Your task to perform on an android device: install app "Google Calendar" Image 0: 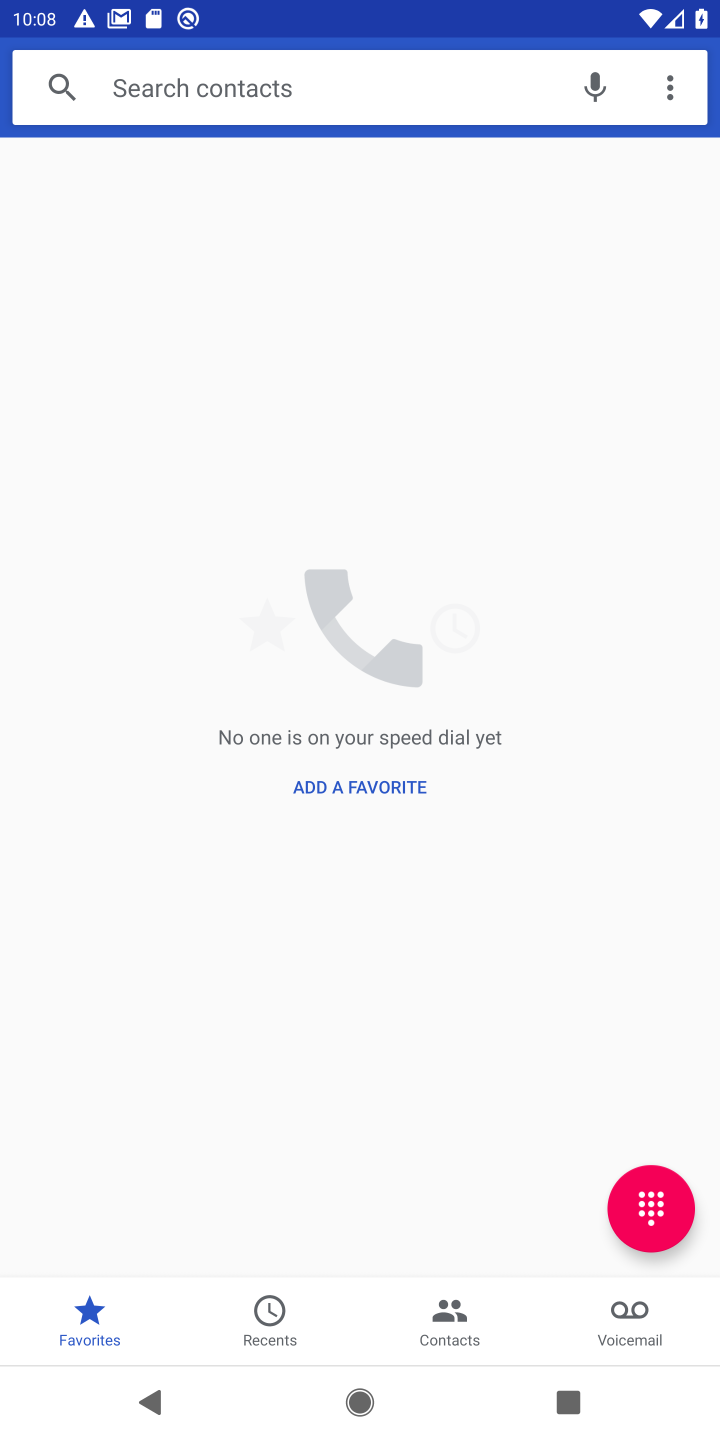
Step 0: press home button
Your task to perform on an android device: install app "Google Calendar" Image 1: 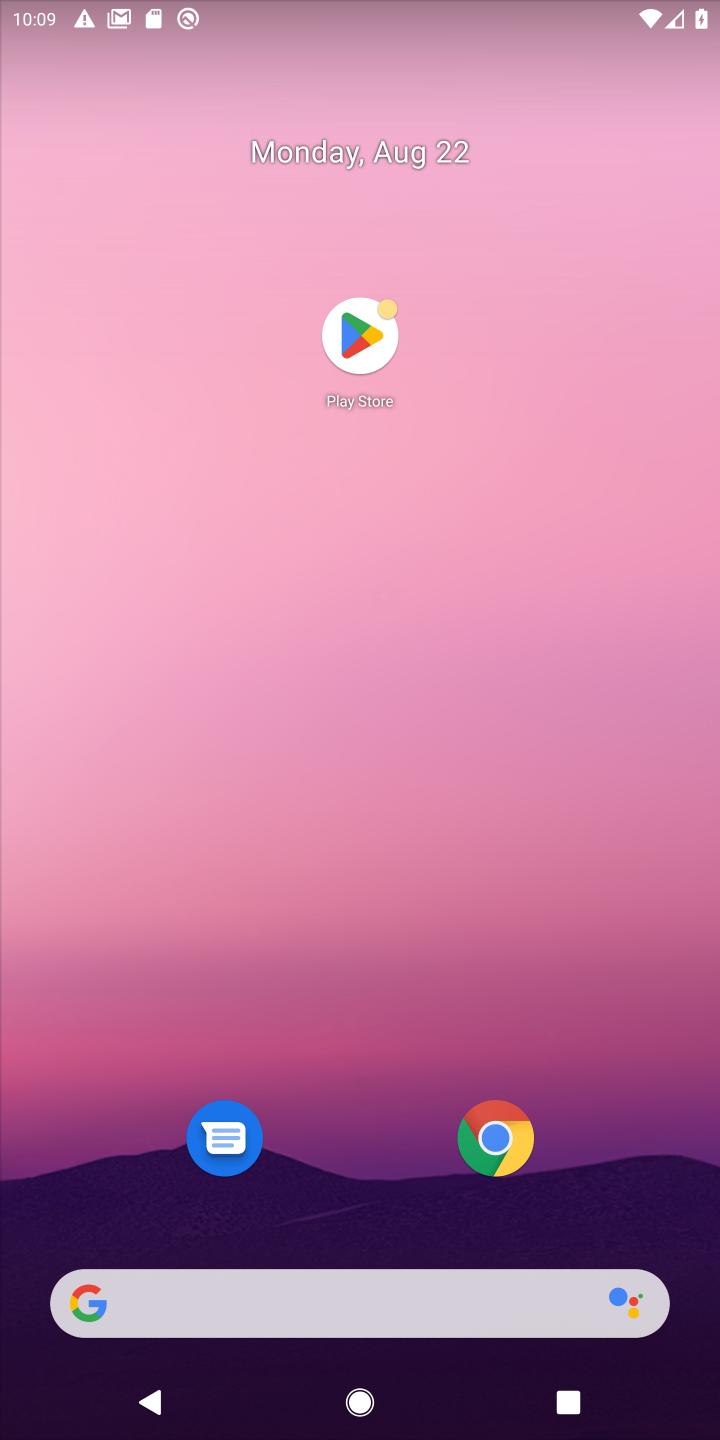
Step 1: click (373, 336)
Your task to perform on an android device: install app "Google Calendar" Image 2: 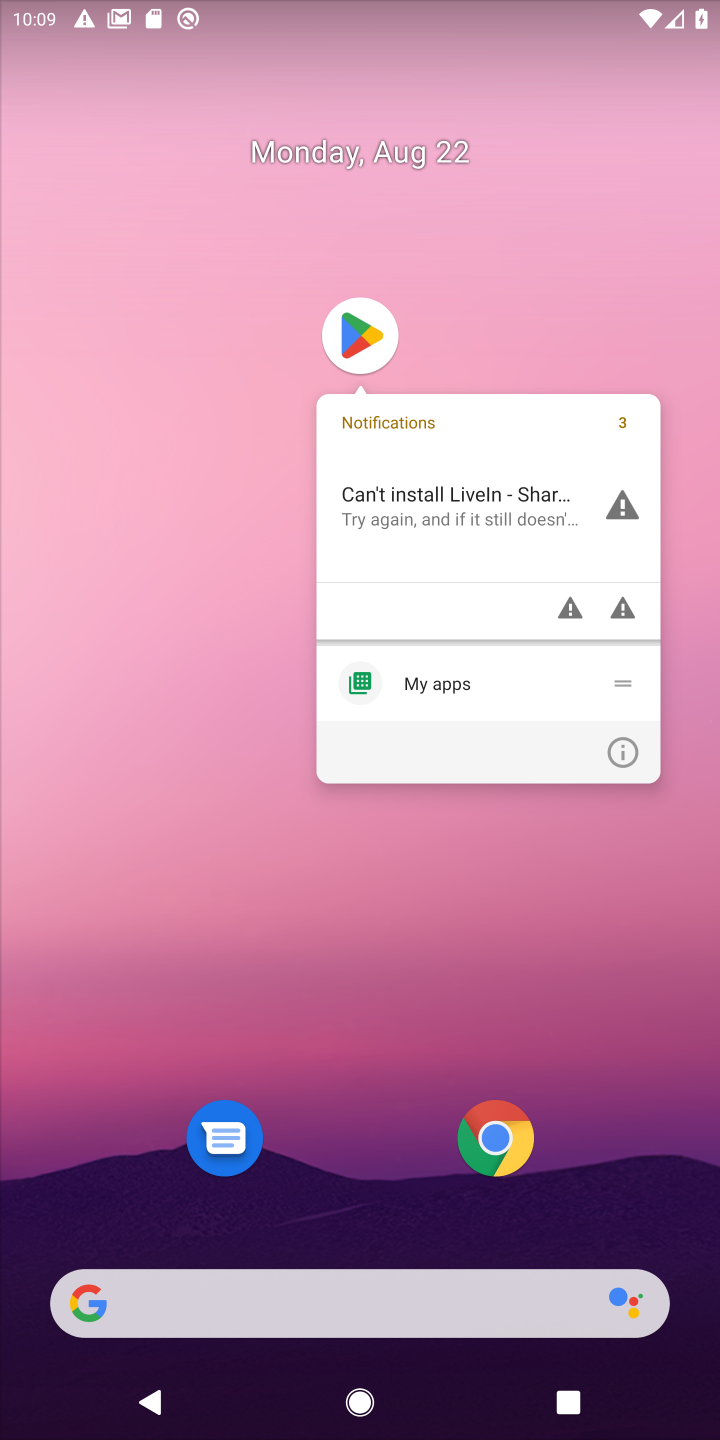
Step 2: click (346, 329)
Your task to perform on an android device: install app "Google Calendar" Image 3: 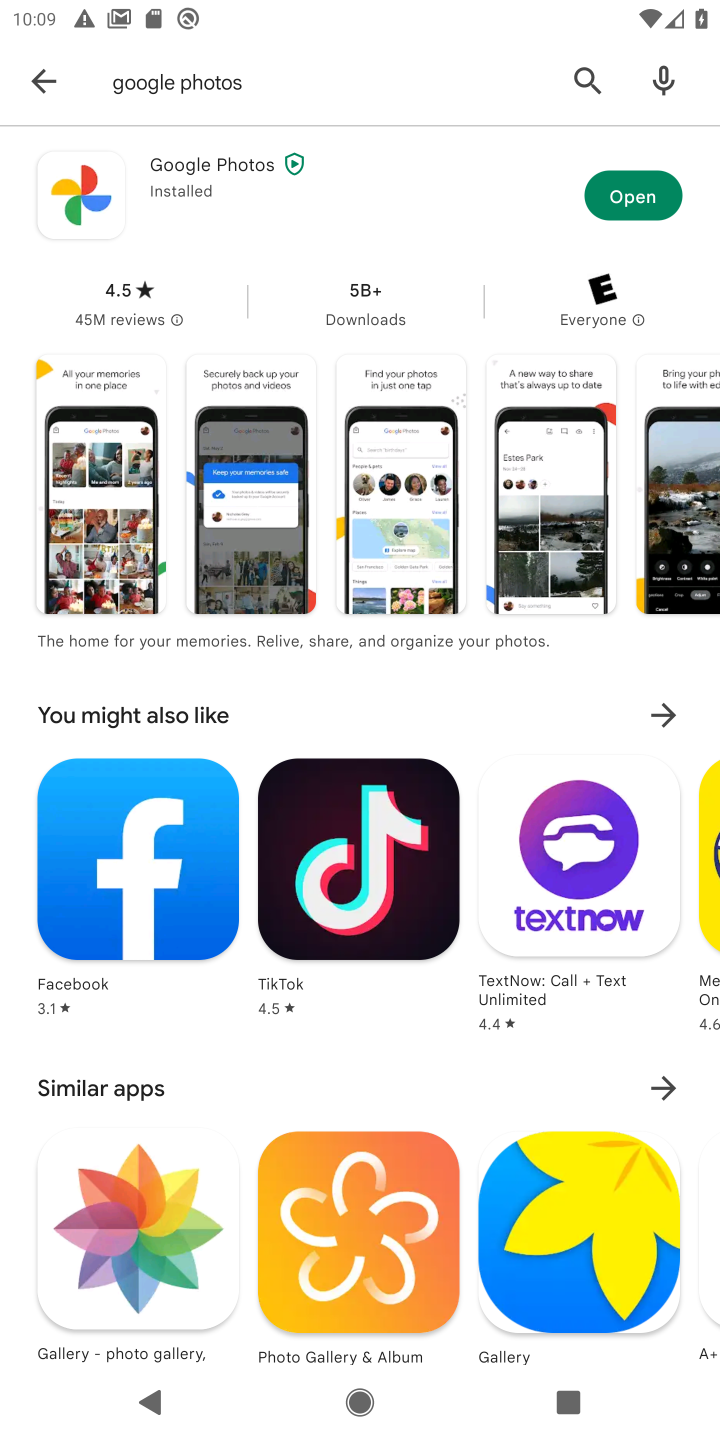
Step 3: click (579, 76)
Your task to perform on an android device: install app "Google Calendar" Image 4: 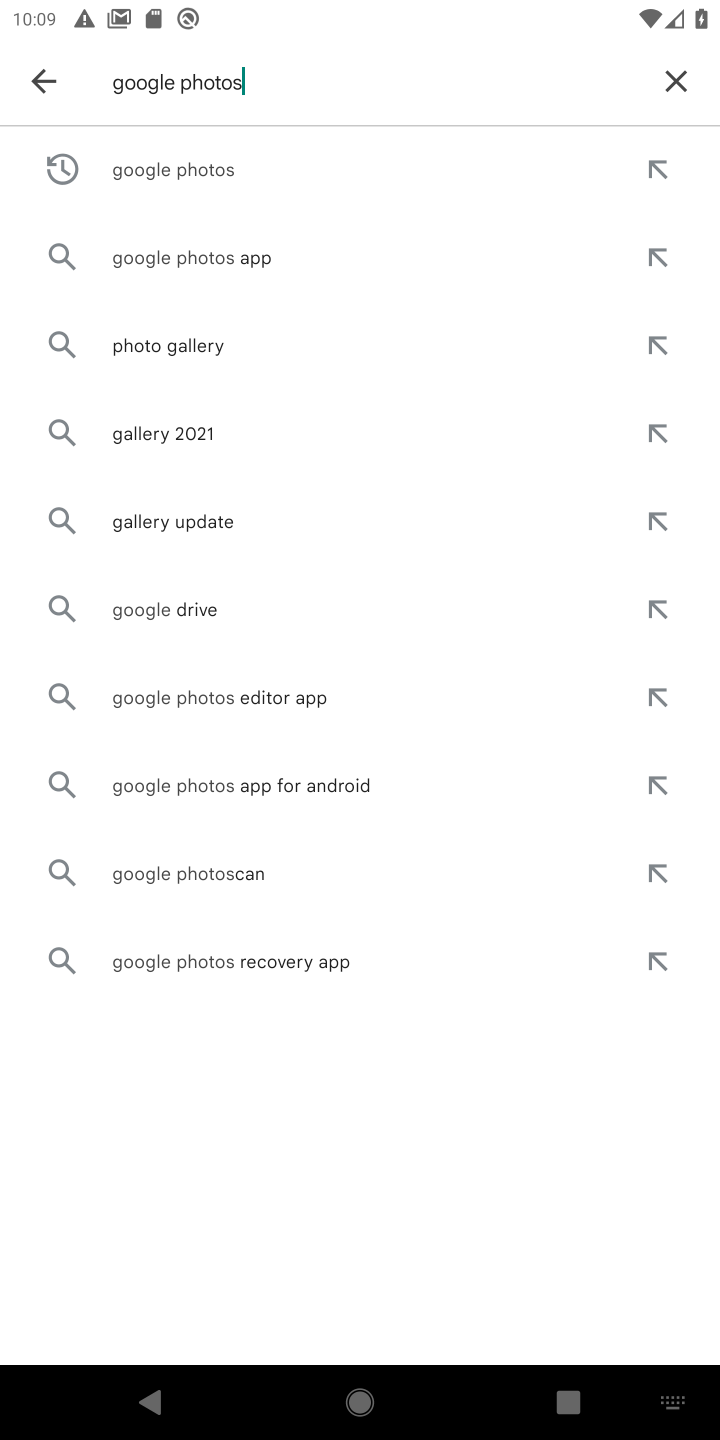
Step 4: click (676, 73)
Your task to perform on an android device: install app "Google Calendar" Image 5: 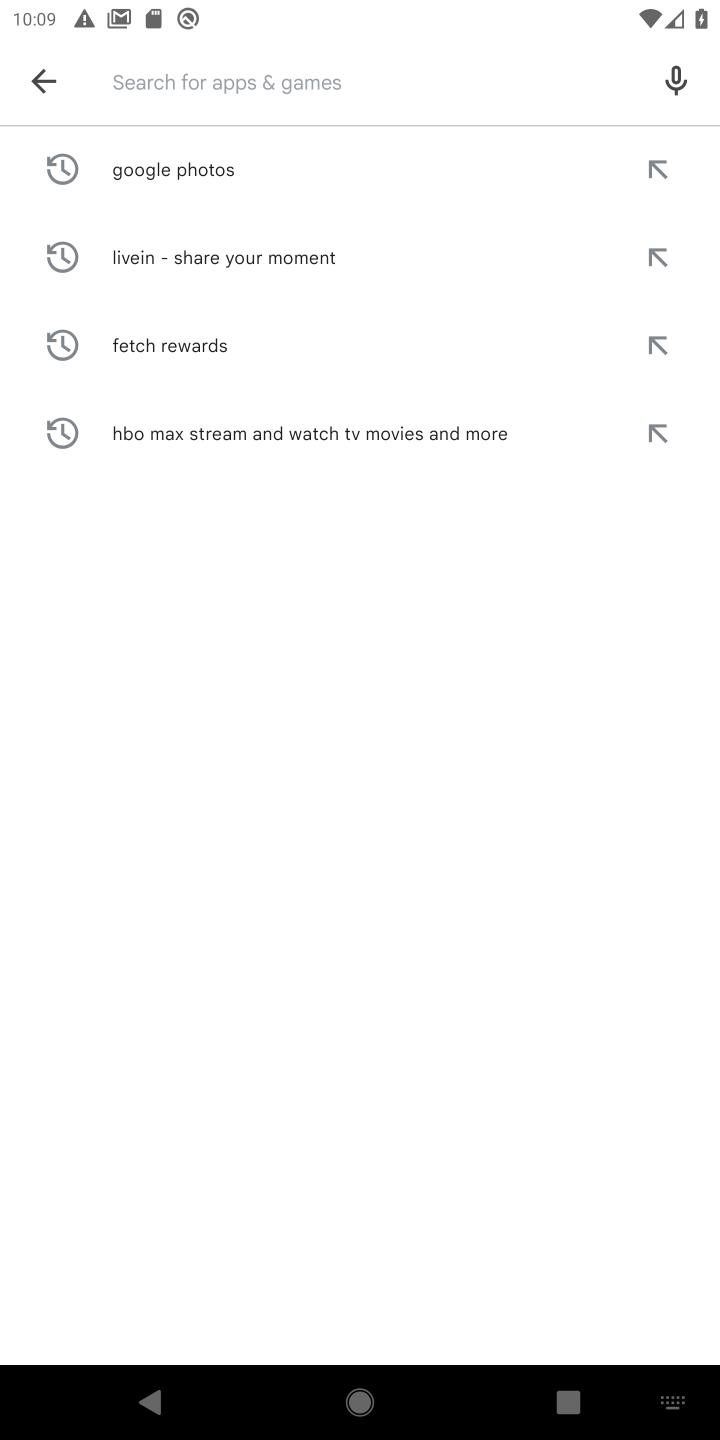
Step 5: type "google calandher"
Your task to perform on an android device: install app "Google Calendar" Image 6: 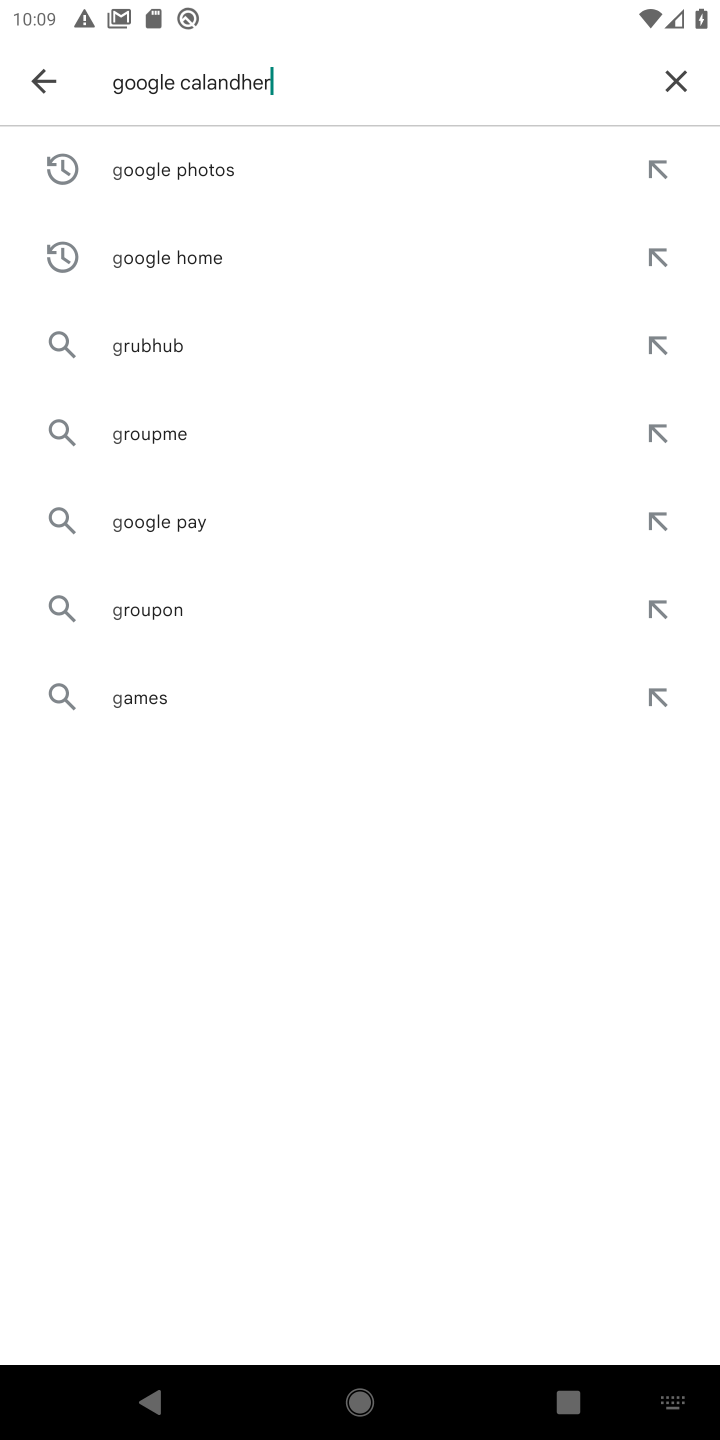
Step 6: type ""
Your task to perform on an android device: install app "Google Calendar" Image 7: 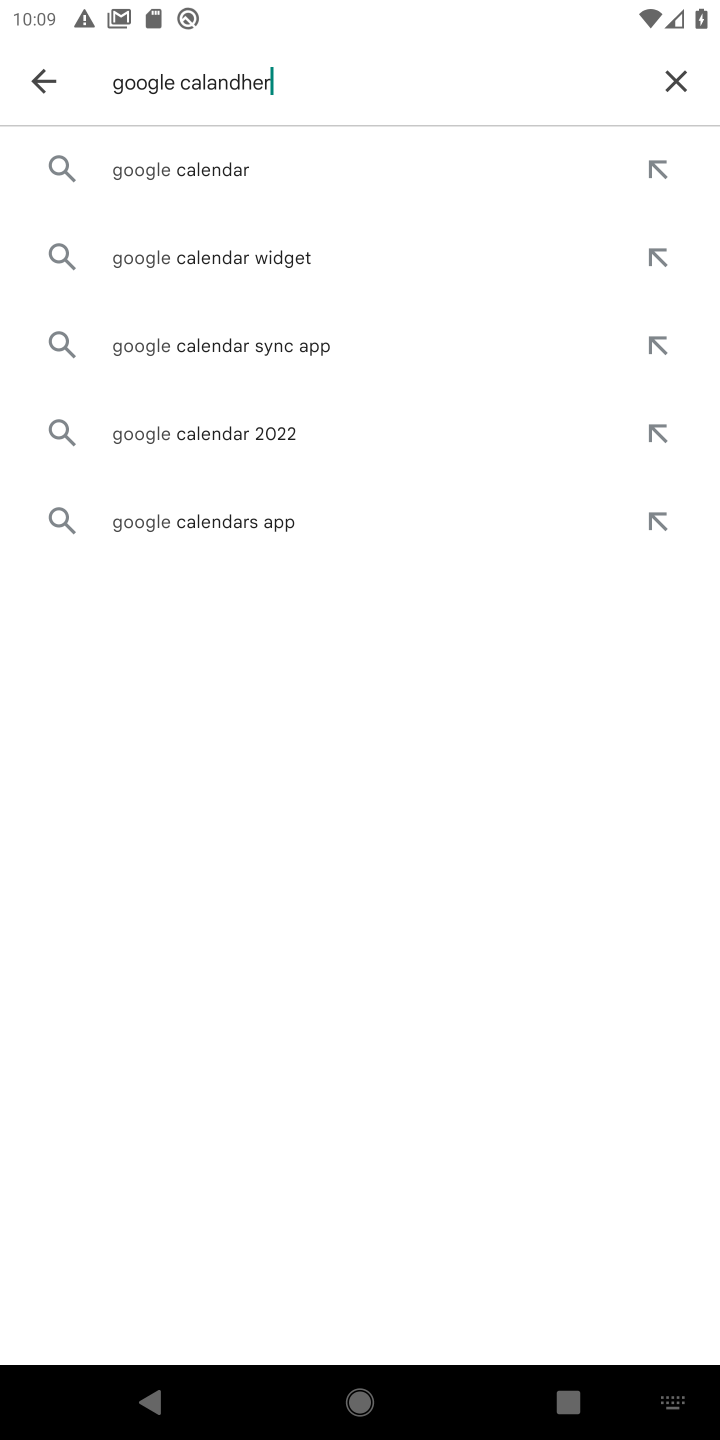
Step 7: click (188, 171)
Your task to perform on an android device: install app "Google Calendar" Image 8: 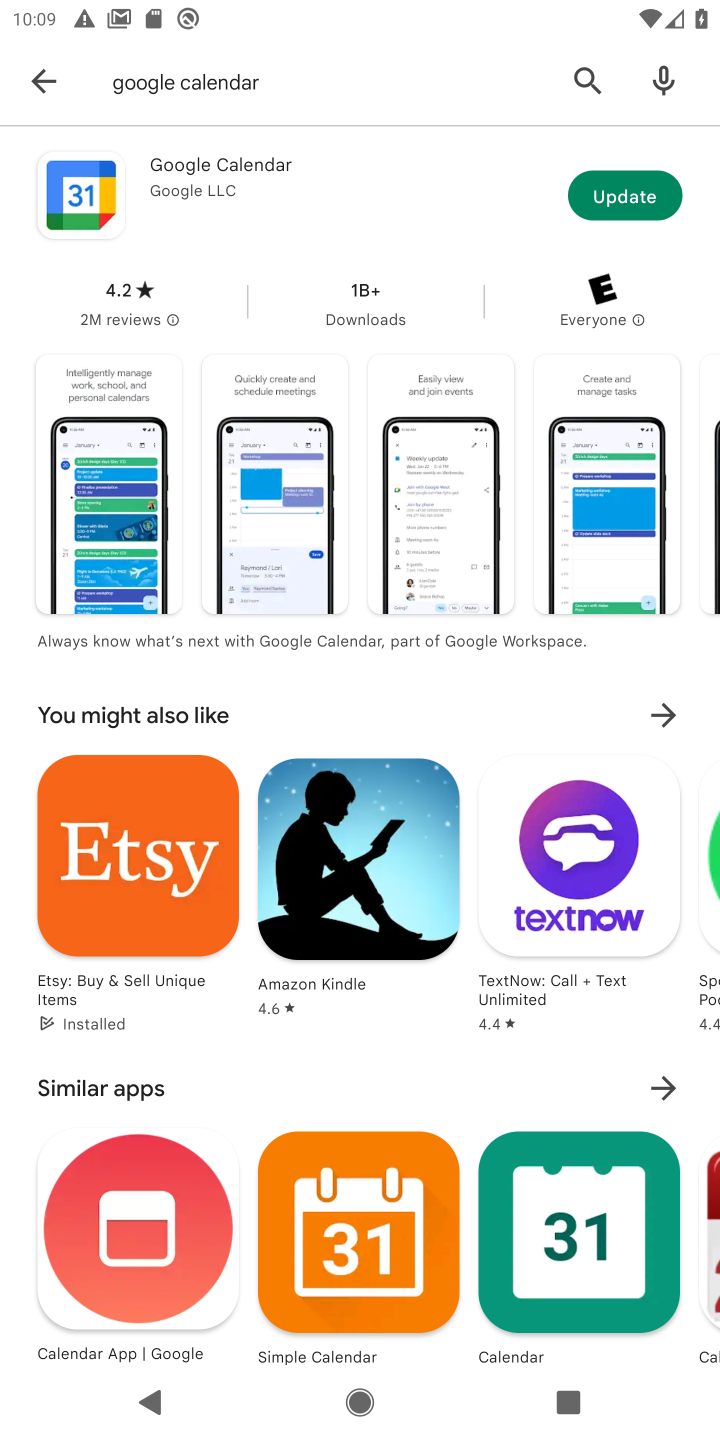
Step 8: task complete